Your task to perform on an android device: find which apps use the phone's location Image 0: 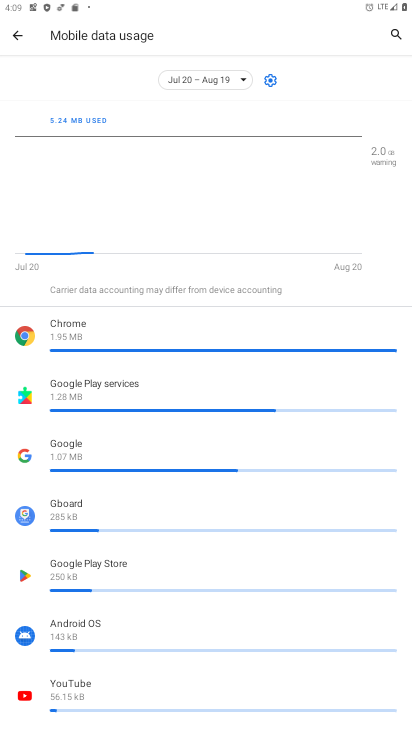
Step 0: press home button
Your task to perform on an android device: find which apps use the phone's location Image 1: 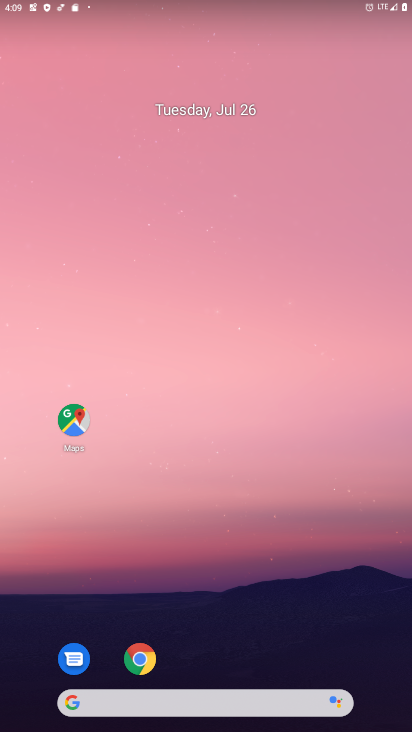
Step 1: drag from (215, 292) to (204, 47)
Your task to perform on an android device: find which apps use the phone's location Image 2: 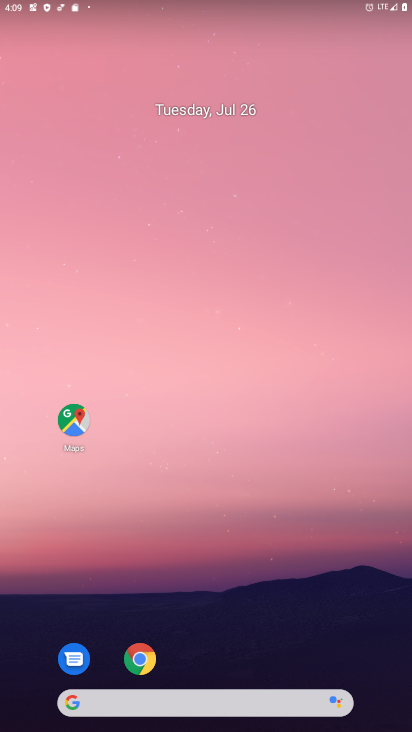
Step 2: drag from (228, 613) to (277, 332)
Your task to perform on an android device: find which apps use the phone's location Image 3: 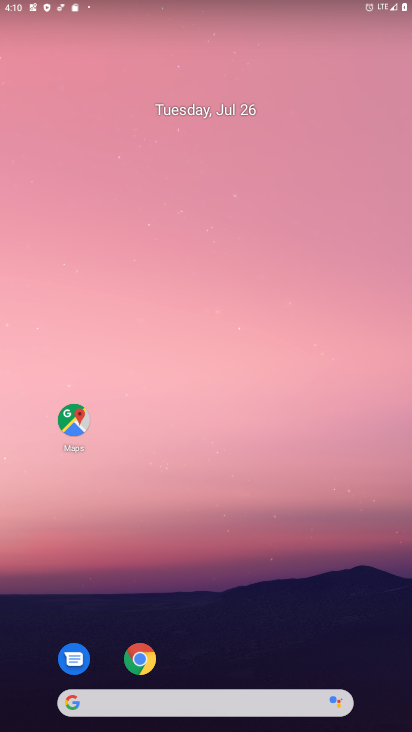
Step 3: drag from (227, 508) to (205, 107)
Your task to perform on an android device: find which apps use the phone's location Image 4: 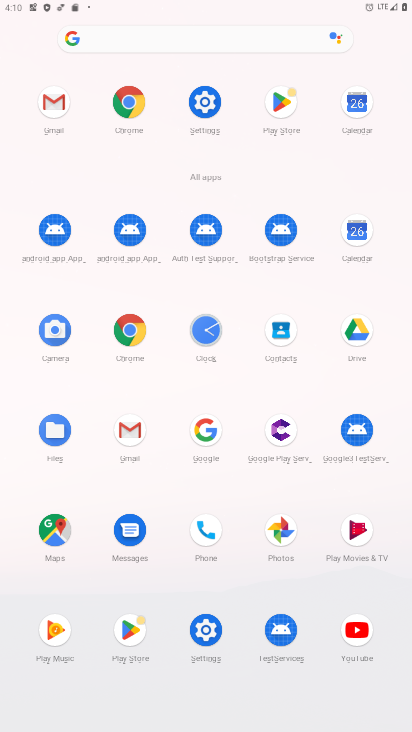
Step 4: click (206, 108)
Your task to perform on an android device: find which apps use the phone's location Image 5: 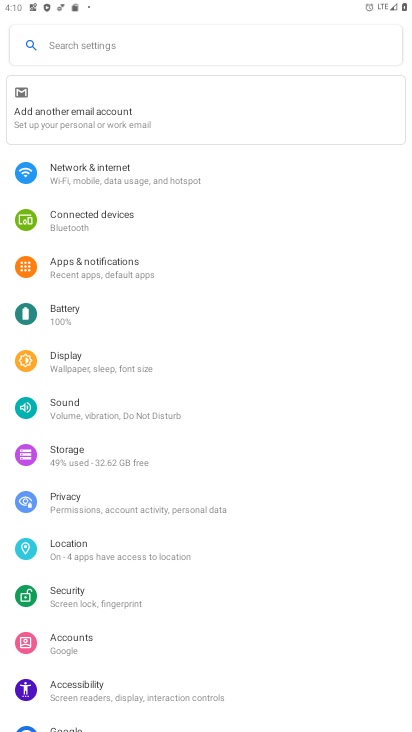
Step 5: click (88, 543)
Your task to perform on an android device: find which apps use the phone's location Image 6: 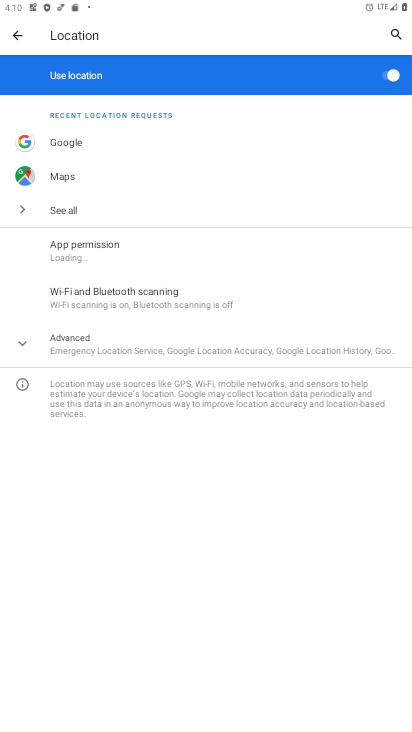
Step 6: click (70, 251)
Your task to perform on an android device: find which apps use the phone's location Image 7: 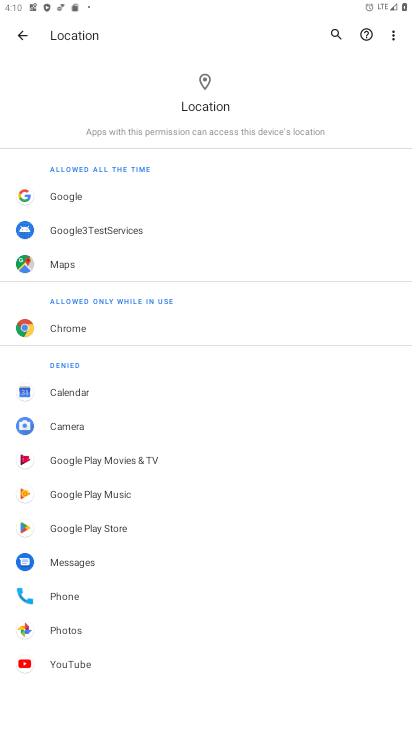
Step 7: task complete